Your task to perform on an android device: change notifications settings Image 0: 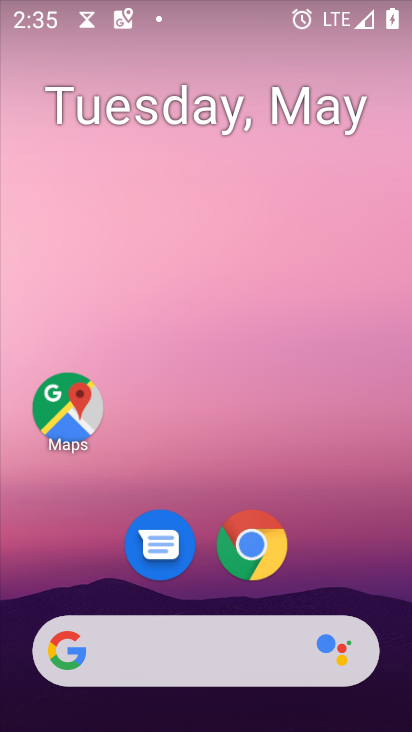
Step 0: drag from (334, 481) to (252, 37)
Your task to perform on an android device: change notifications settings Image 1: 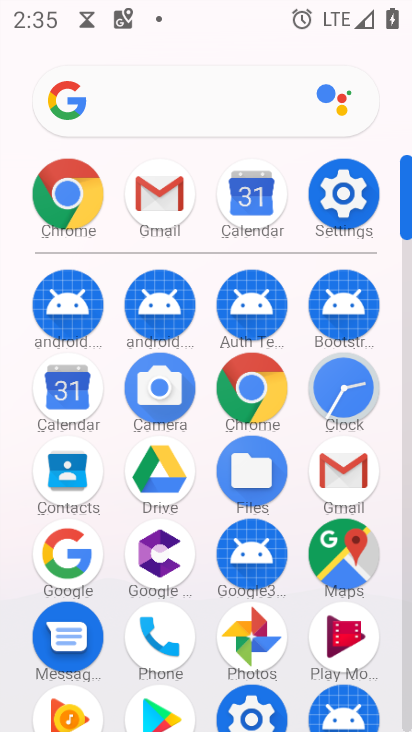
Step 1: drag from (14, 571) to (30, 248)
Your task to perform on an android device: change notifications settings Image 2: 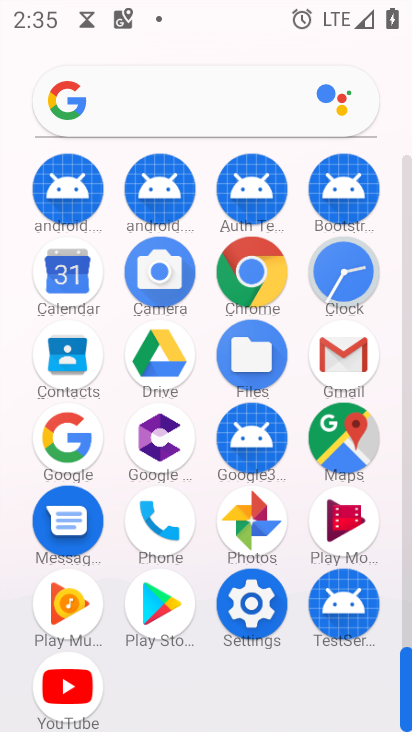
Step 2: click (251, 599)
Your task to perform on an android device: change notifications settings Image 3: 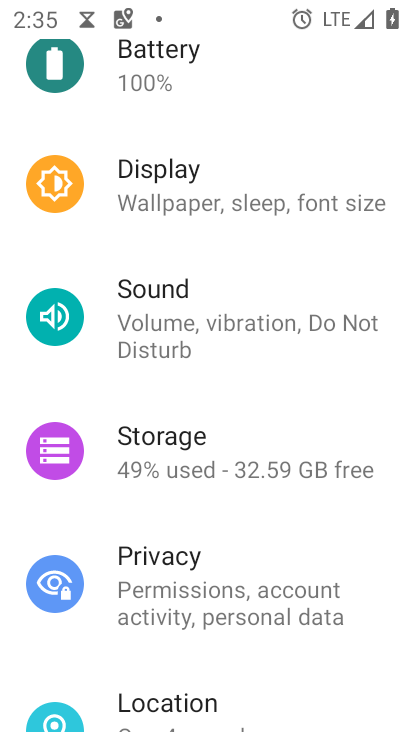
Step 3: drag from (295, 143) to (300, 597)
Your task to perform on an android device: change notifications settings Image 4: 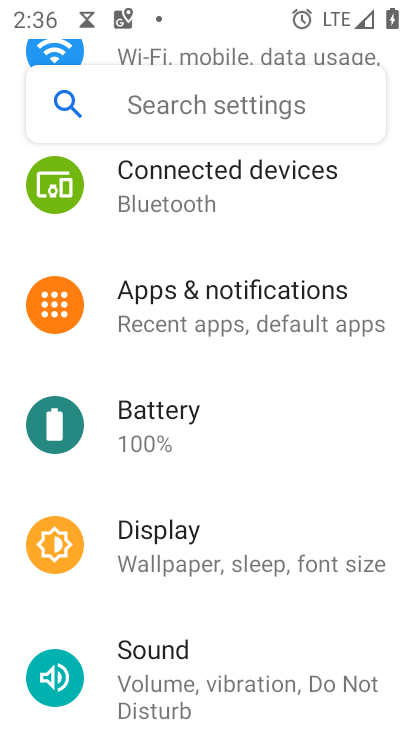
Step 4: click (249, 306)
Your task to perform on an android device: change notifications settings Image 5: 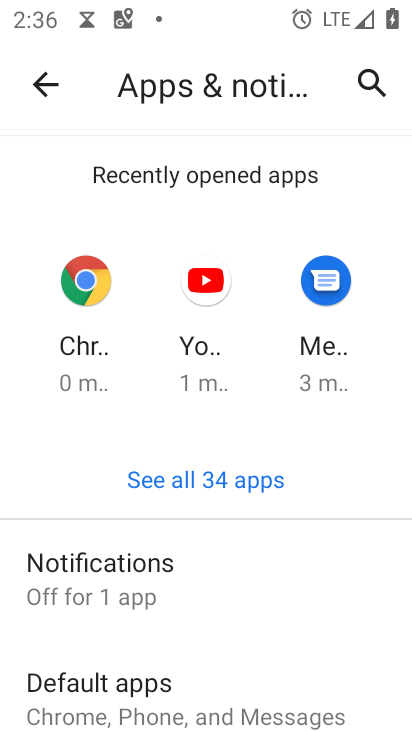
Step 5: click (187, 579)
Your task to perform on an android device: change notifications settings Image 6: 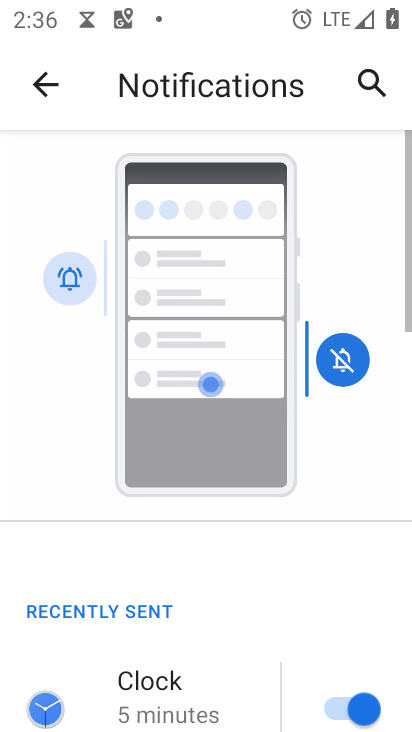
Step 6: drag from (235, 597) to (217, 195)
Your task to perform on an android device: change notifications settings Image 7: 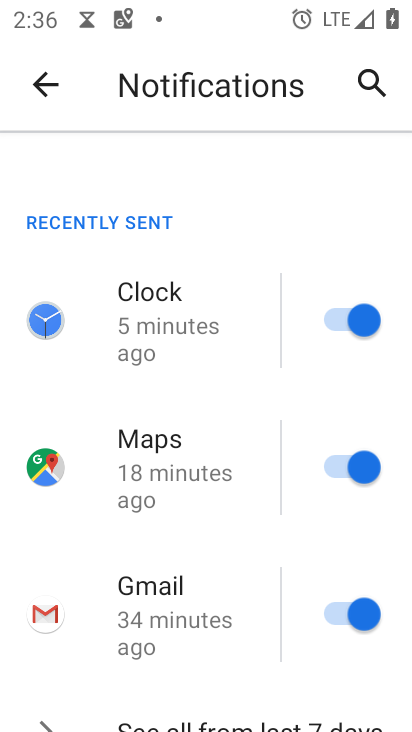
Step 7: drag from (218, 551) to (241, 215)
Your task to perform on an android device: change notifications settings Image 8: 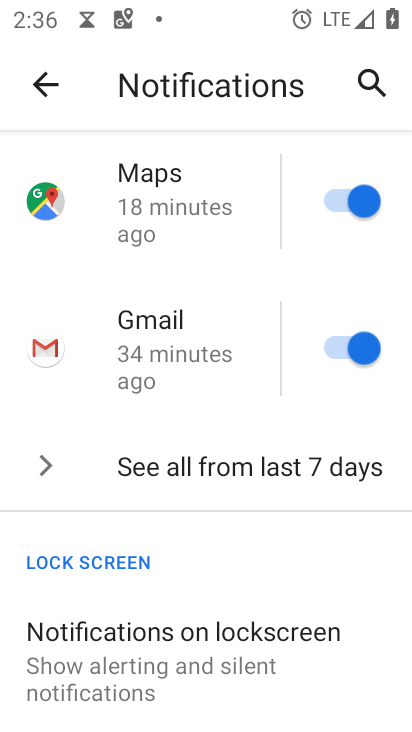
Step 8: drag from (210, 595) to (251, 225)
Your task to perform on an android device: change notifications settings Image 9: 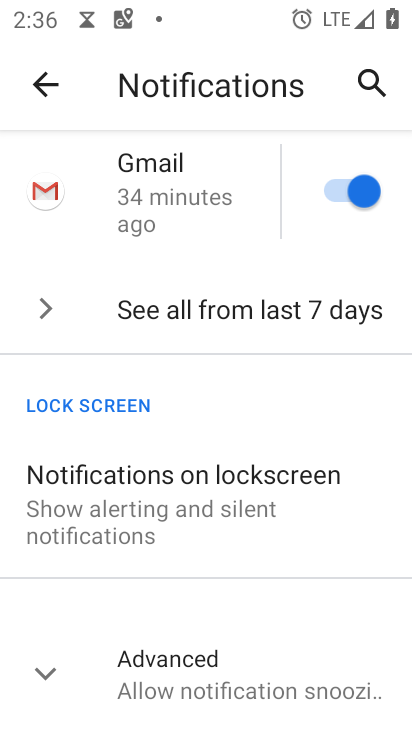
Step 9: click (58, 665)
Your task to perform on an android device: change notifications settings Image 10: 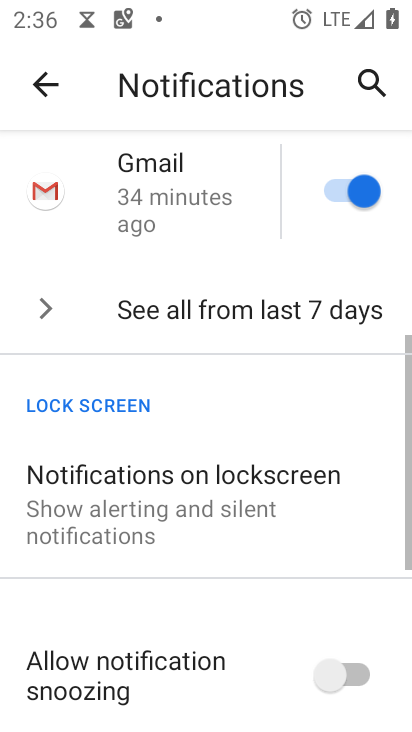
Step 10: drag from (227, 618) to (263, 220)
Your task to perform on an android device: change notifications settings Image 11: 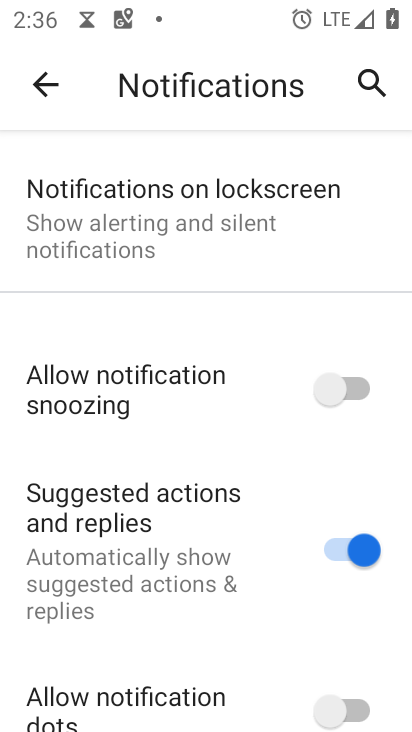
Step 11: click (236, 208)
Your task to perform on an android device: change notifications settings Image 12: 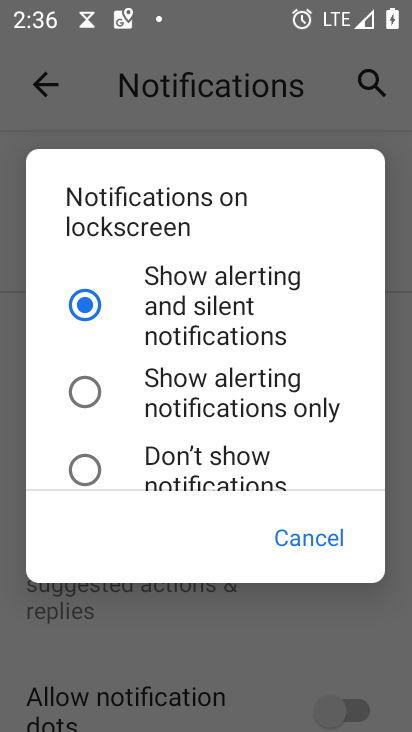
Step 12: click (122, 368)
Your task to perform on an android device: change notifications settings Image 13: 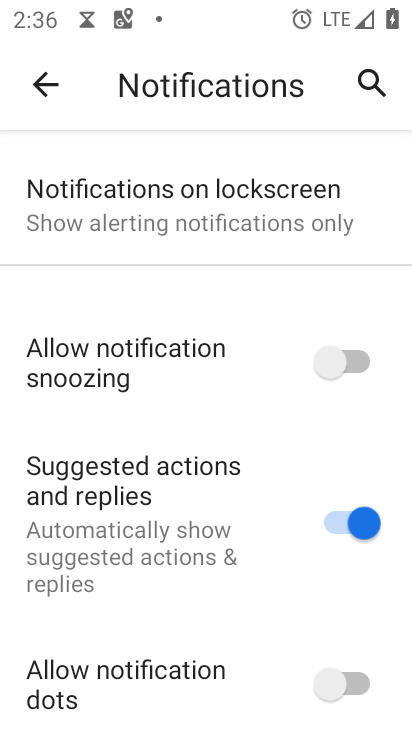
Step 13: task complete